Your task to perform on an android device: Open Yahoo.com Image 0: 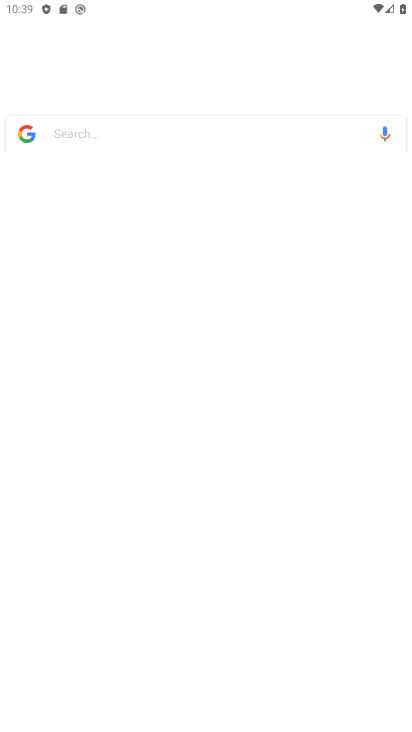
Step 0: drag from (192, 697) to (132, 217)
Your task to perform on an android device: Open Yahoo.com Image 1: 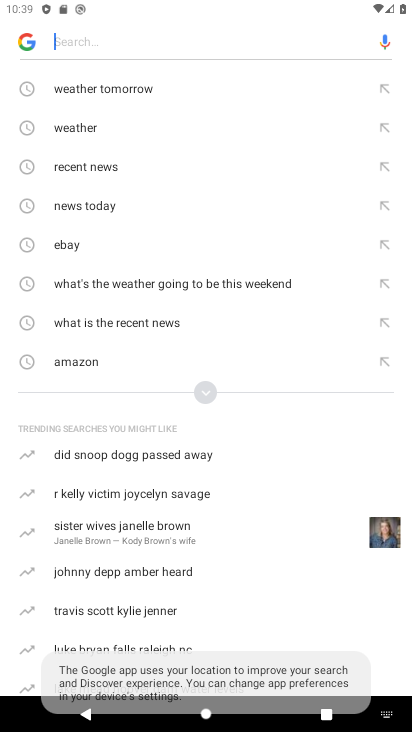
Step 1: press back button
Your task to perform on an android device: Open Yahoo.com Image 2: 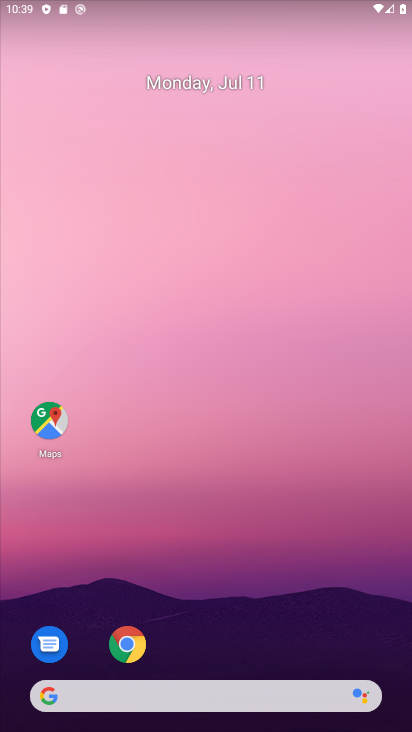
Step 2: click (116, 646)
Your task to perform on an android device: Open Yahoo.com Image 3: 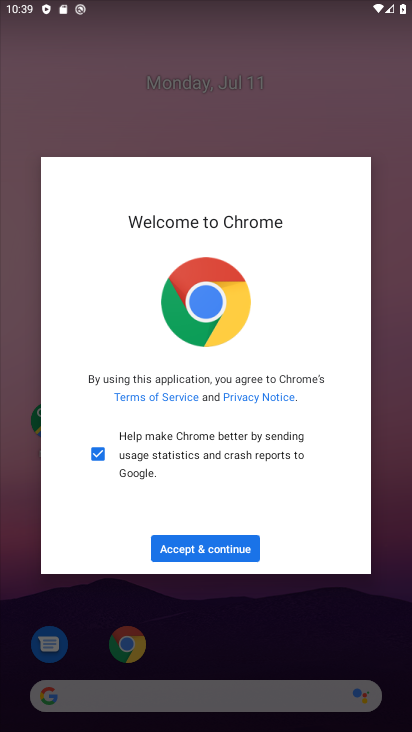
Step 3: click (203, 556)
Your task to perform on an android device: Open Yahoo.com Image 4: 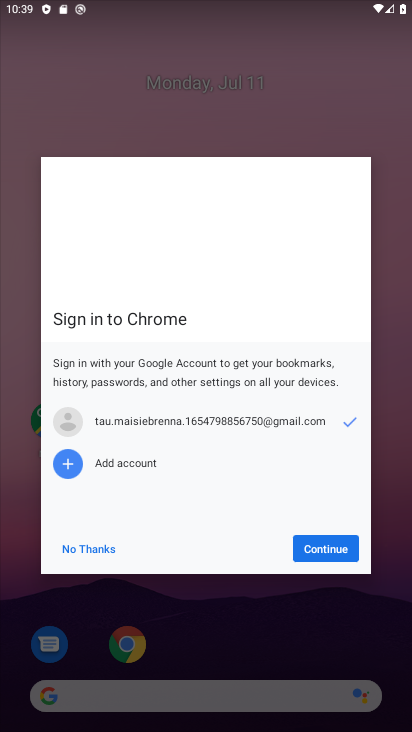
Step 4: click (326, 553)
Your task to perform on an android device: Open Yahoo.com Image 5: 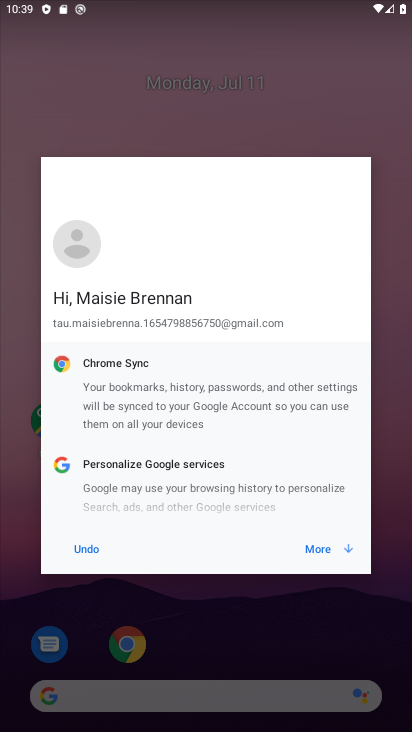
Step 5: click (325, 554)
Your task to perform on an android device: Open Yahoo.com Image 6: 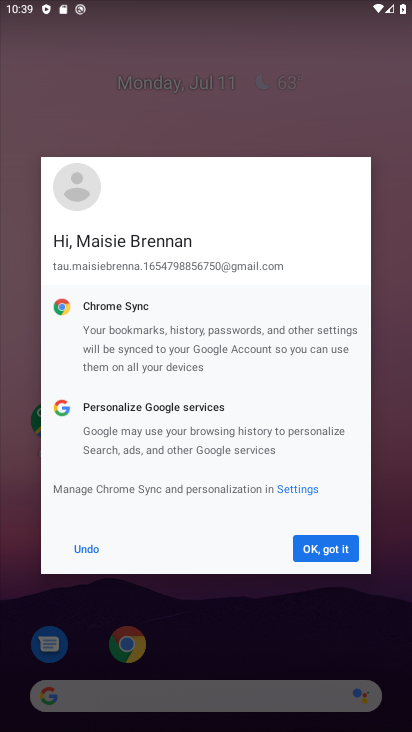
Step 6: click (325, 554)
Your task to perform on an android device: Open Yahoo.com Image 7: 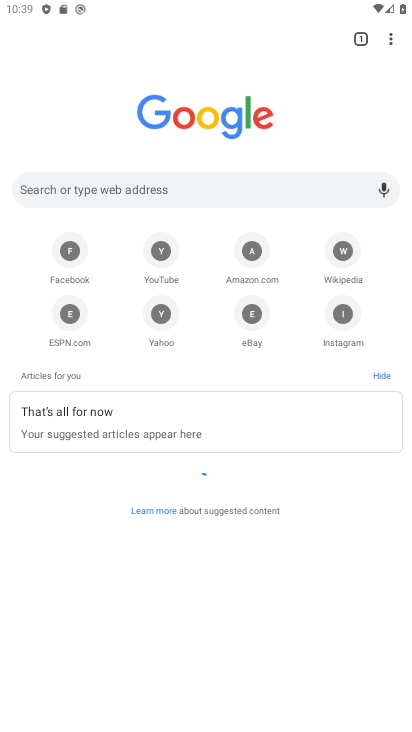
Step 7: click (156, 320)
Your task to perform on an android device: Open Yahoo.com Image 8: 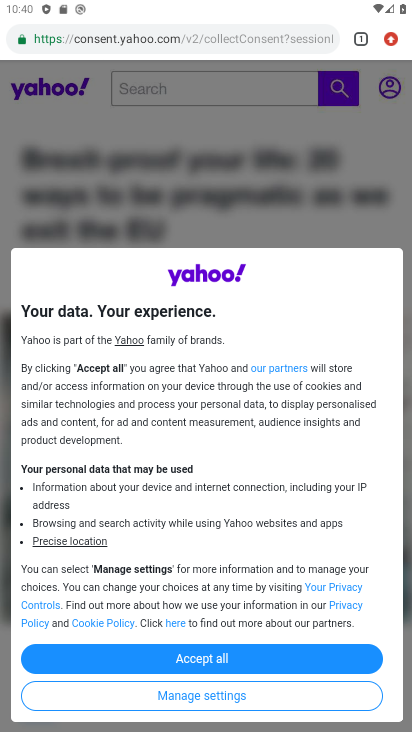
Step 8: task complete